Your task to perform on an android device: Open Yahoo.com Image 0: 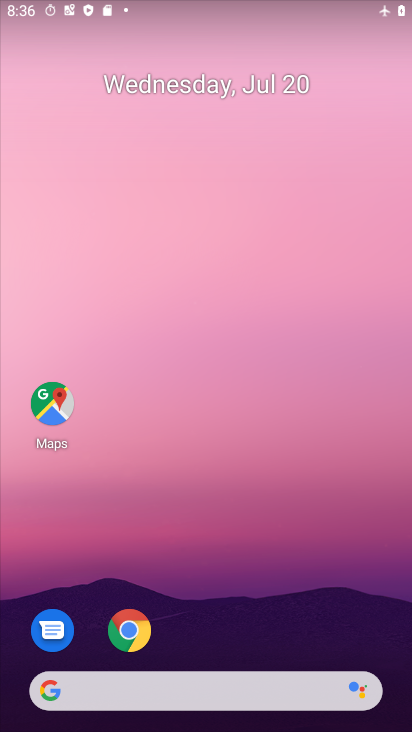
Step 0: drag from (278, 636) to (287, 199)
Your task to perform on an android device: Open Yahoo.com Image 1: 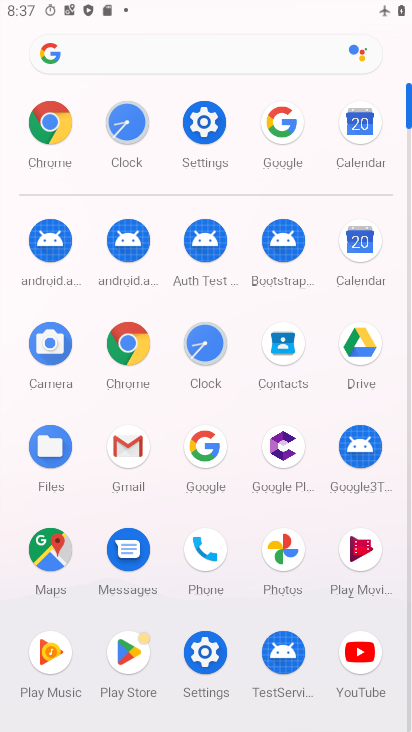
Step 1: click (140, 339)
Your task to perform on an android device: Open Yahoo.com Image 2: 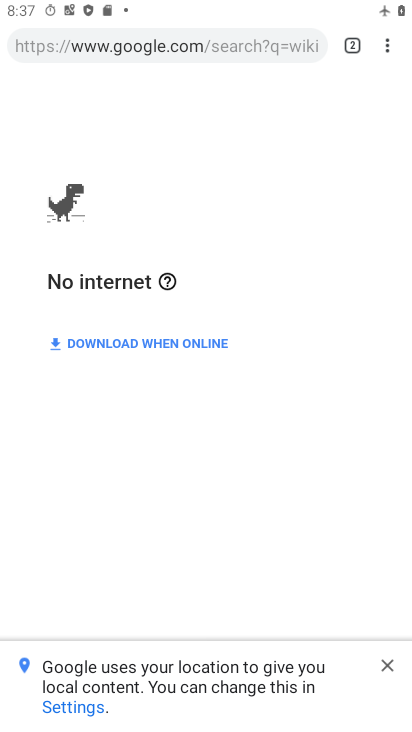
Step 2: click (294, 43)
Your task to perform on an android device: Open Yahoo.com Image 3: 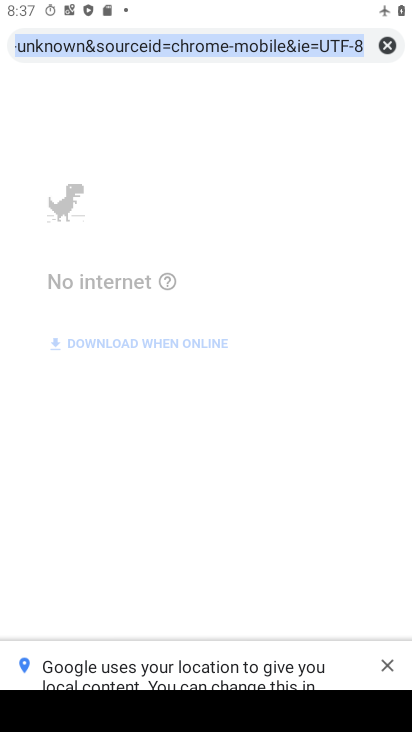
Step 3: type "yahoo"
Your task to perform on an android device: Open Yahoo.com Image 4: 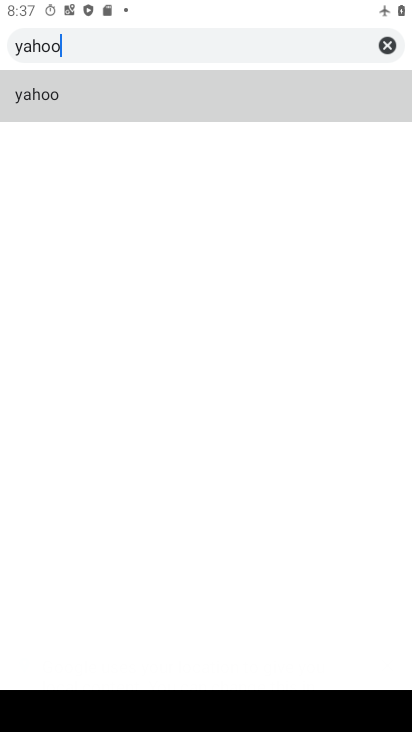
Step 4: task complete